Your task to perform on an android device: find snoozed emails in the gmail app Image 0: 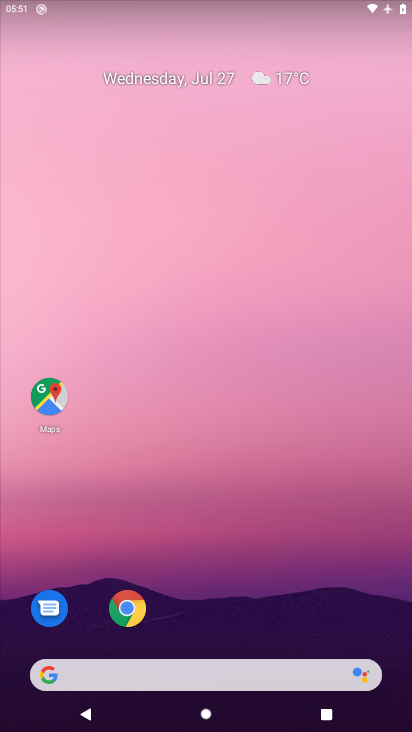
Step 0: press home button
Your task to perform on an android device: find snoozed emails in the gmail app Image 1: 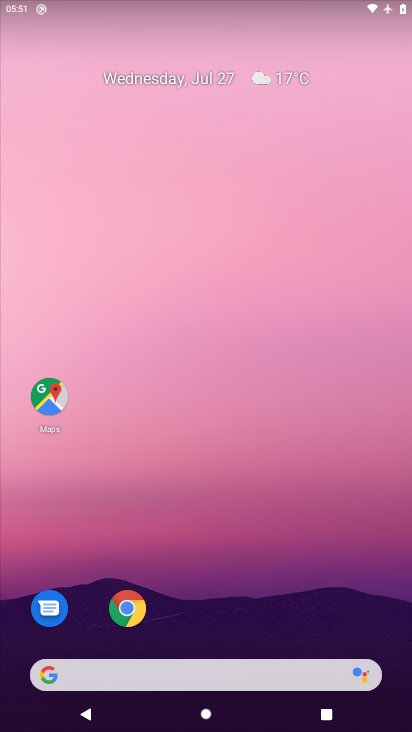
Step 1: drag from (235, 628) to (211, 174)
Your task to perform on an android device: find snoozed emails in the gmail app Image 2: 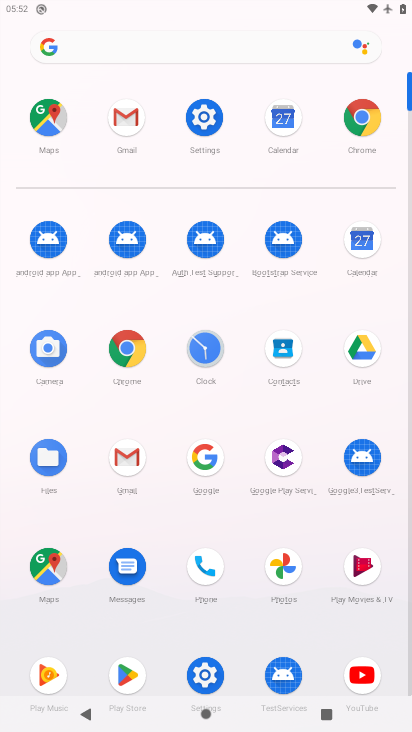
Step 2: click (132, 118)
Your task to perform on an android device: find snoozed emails in the gmail app Image 3: 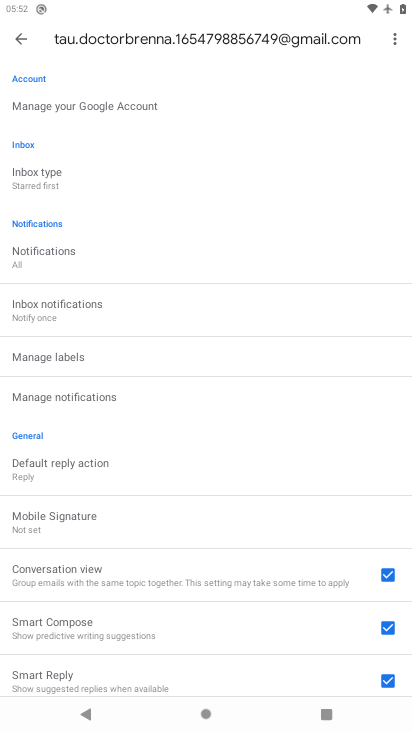
Step 3: click (17, 42)
Your task to perform on an android device: find snoozed emails in the gmail app Image 4: 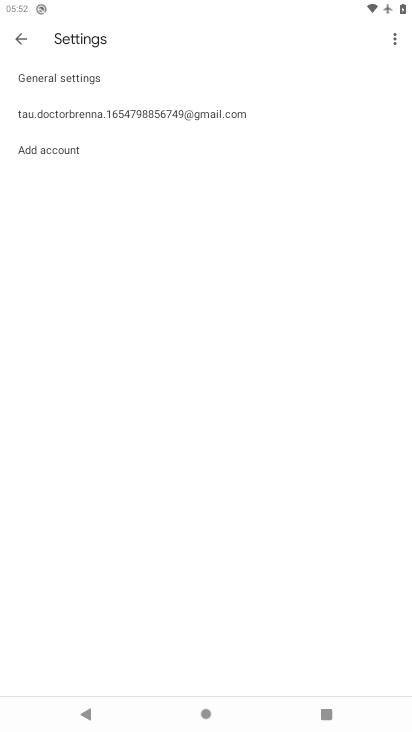
Step 4: click (17, 42)
Your task to perform on an android device: find snoozed emails in the gmail app Image 5: 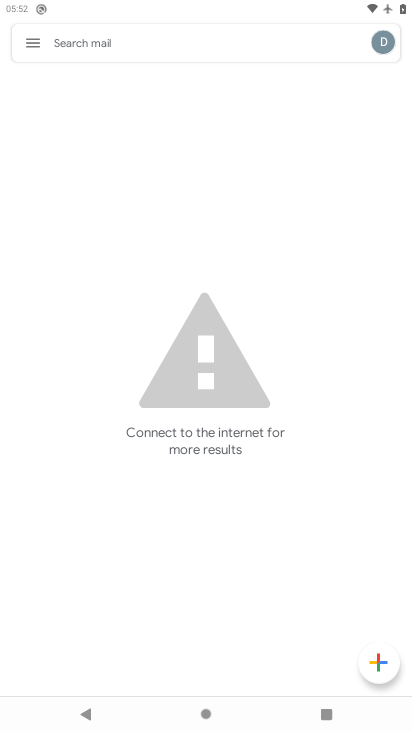
Step 5: click (17, 42)
Your task to perform on an android device: find snoozed emails in the gmail app Image 6: 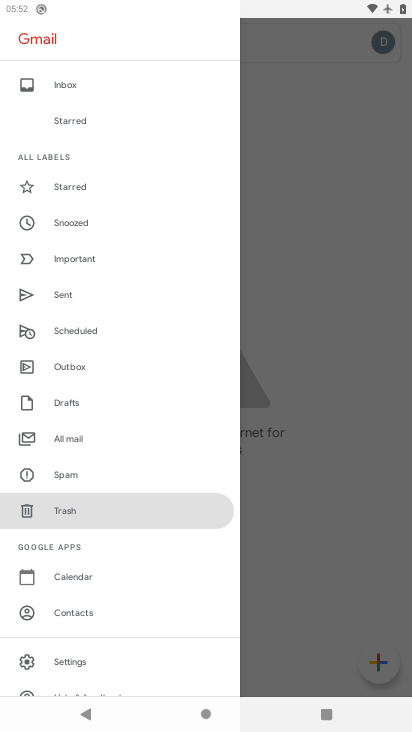
Step 6: click (69, 224)
Your task to perform on an android device: find snoozed emails in the gmail app Image 7: 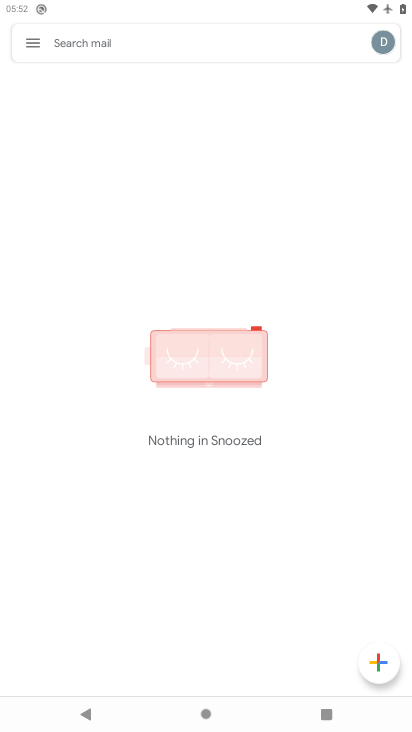
Step 7: task complete